Your task to perform on an android device: add a contact in the contacts app Image 0: 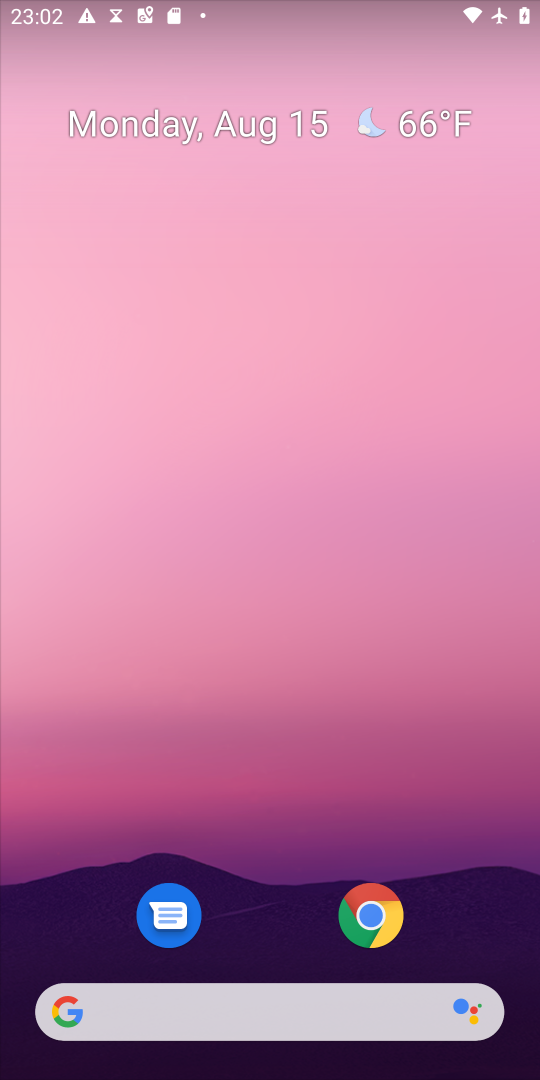
Step 0: drag from (327, 832) to (473, 169)
Your task to perform on an android device: add a contact in the contacts app Image 1: 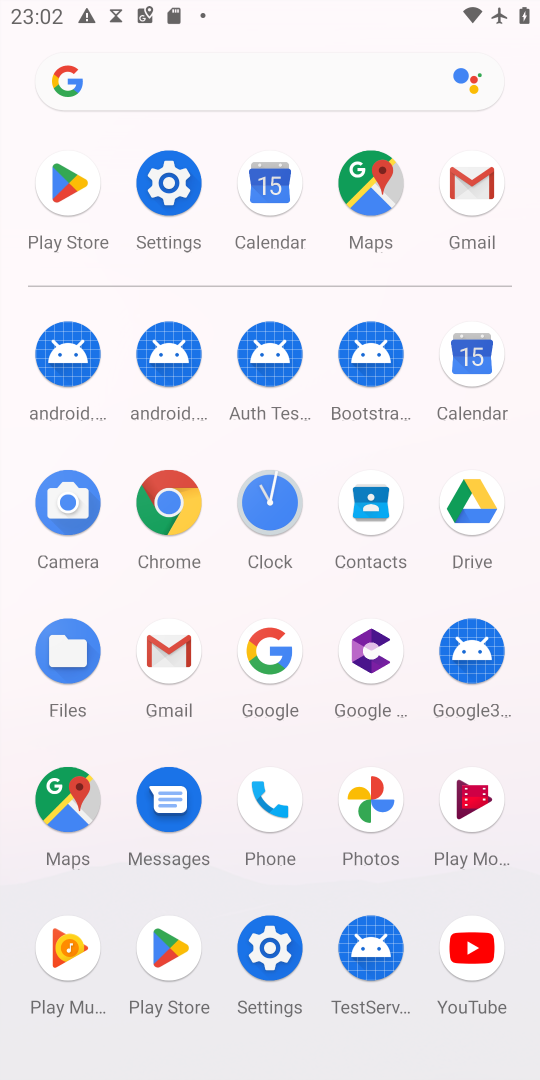
Step 1: click (363, 514)
Your task to perform on an android device: add a contact in the contacts app Image 2: 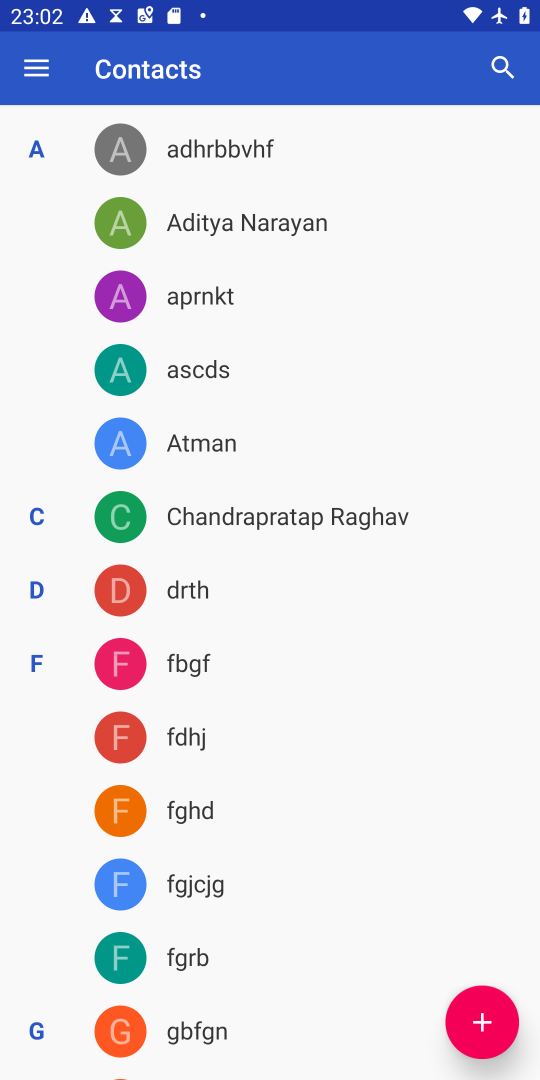
Step 2: click (479, 1016)
Your task to perform on an android device: add a contact in the contacts app Image 3: 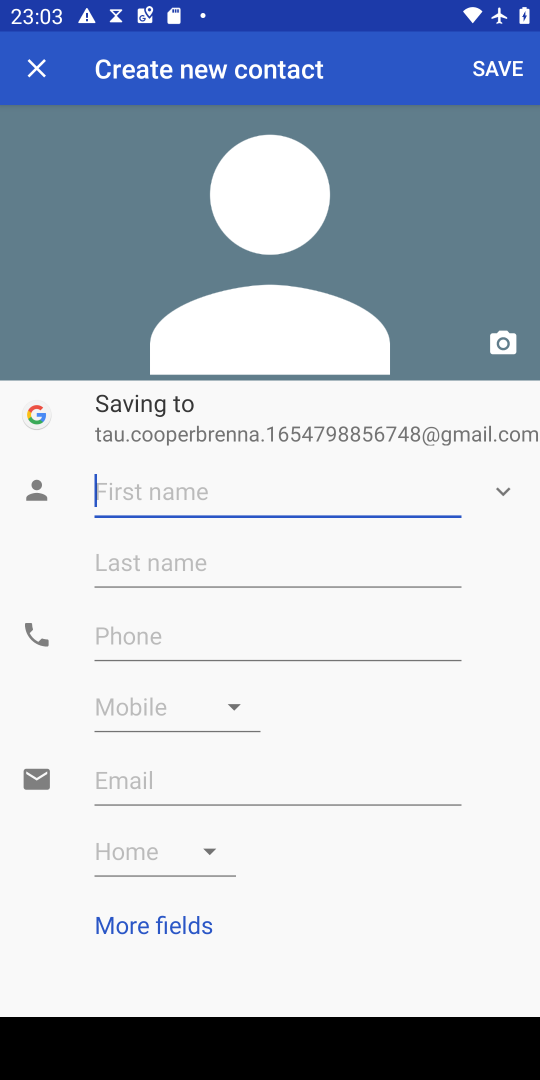
Step 3: type "hjkkkkkkkkkkk"
Your task to perform on an android device: add a contact in the contacts app Image 4: 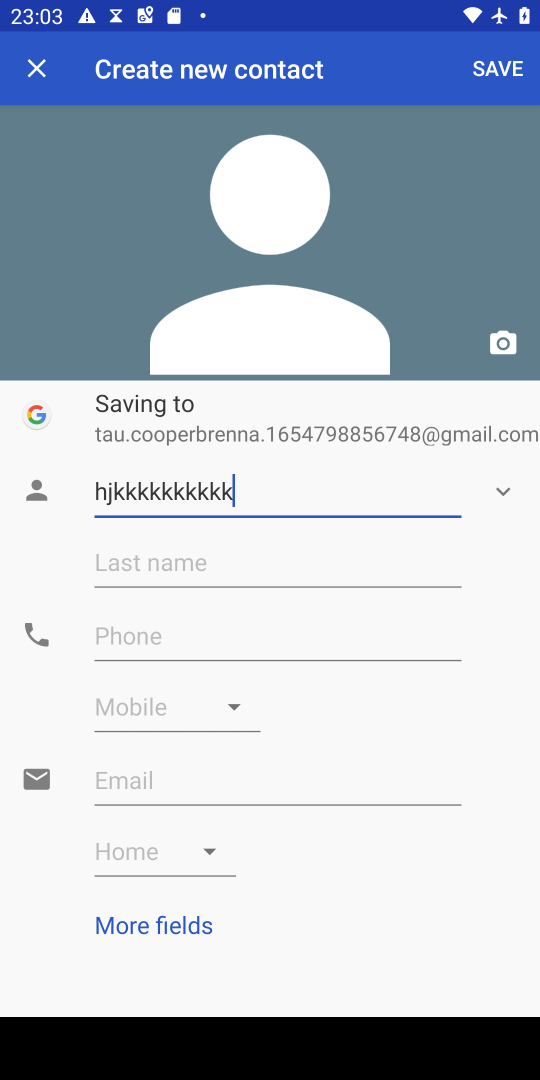
Step 4: press enter
Your task to perform on an android device: add a contact in the contacts app Image 5: 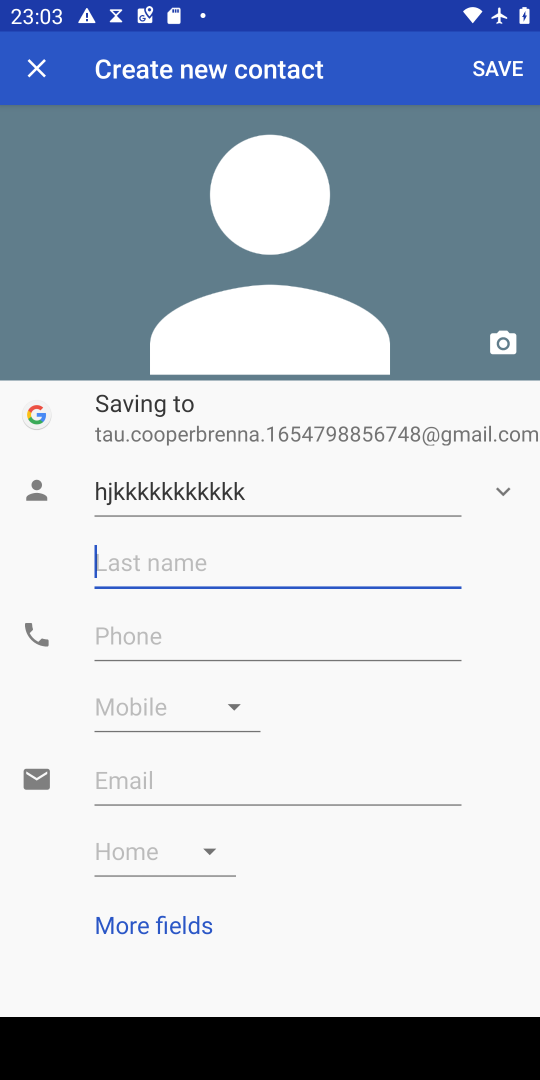
Step 5: click (202, 627)
Your task to perform on an android device: add a contact in the contacts app Image 6: 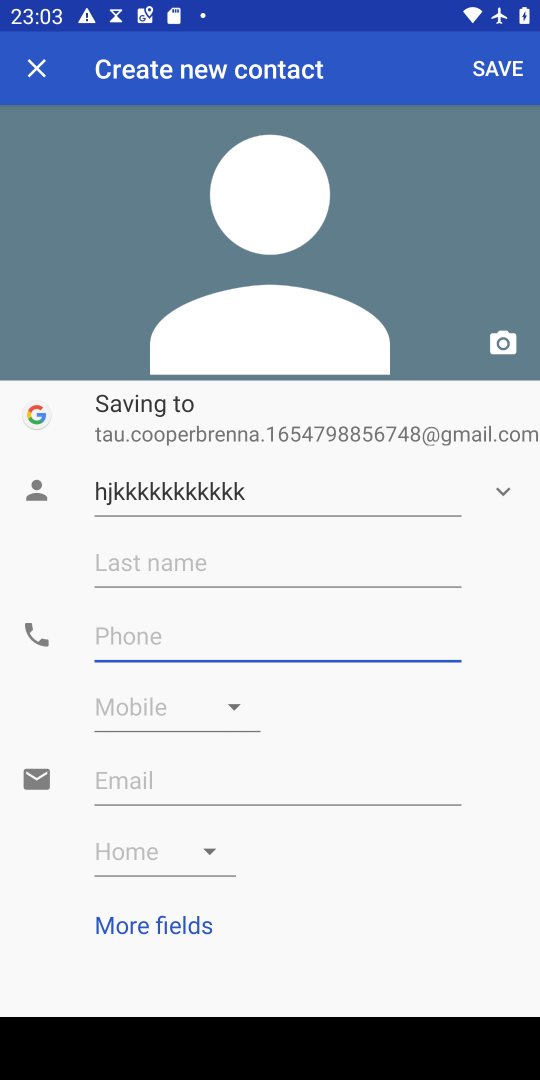
Step 6: type "877777777"
Your task to perform on an android device: add a contact in the contacts app Image 7: 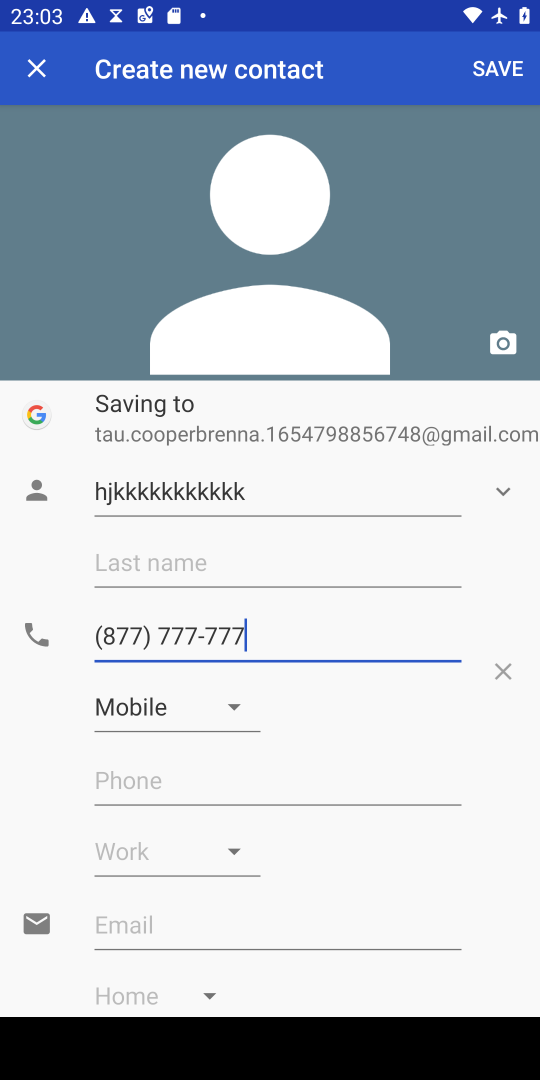
Step 7: press enter
Your task to perform on an android device: add a contact in the contacts app Image 8: 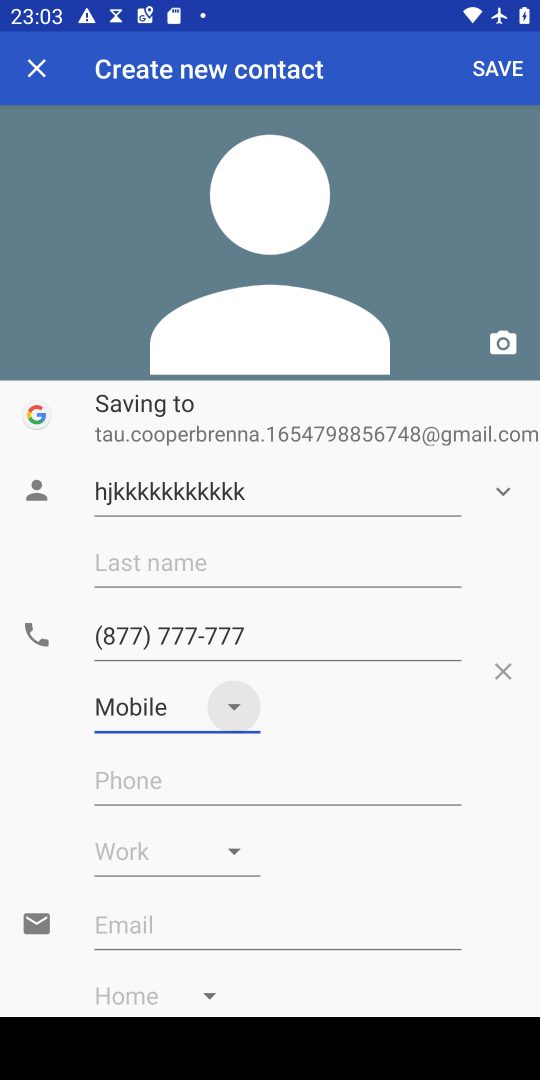
Step 8: click (501, 61)
Your task to perform on an android device: add a contact in the contacts app Image 9: 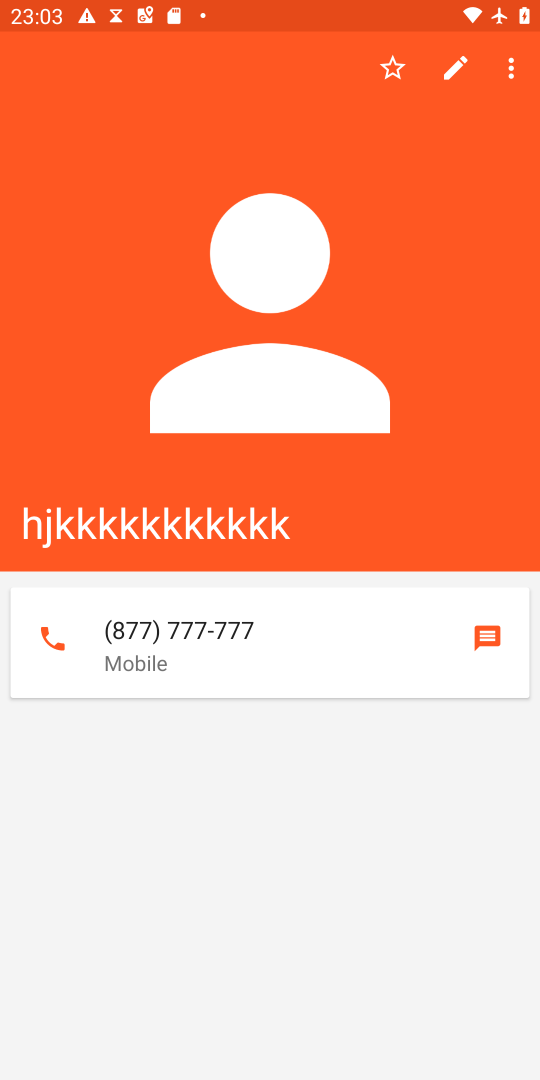
Step 9: task complete